Your task to perform on an android device: Go to Google Image 0: 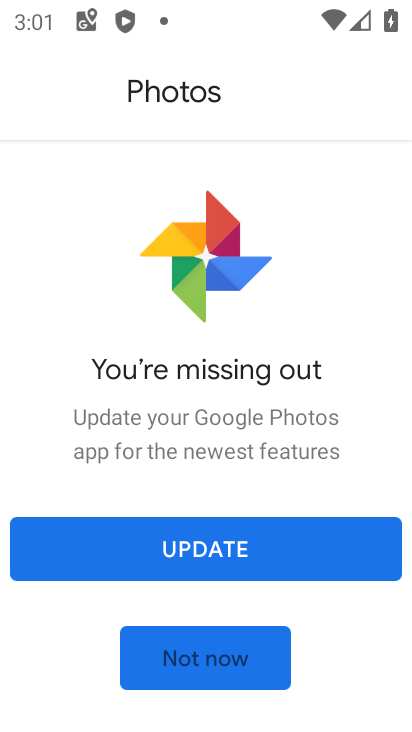
Step 0: press home button
Your task to perform on an android device: Go to Google Image 1: 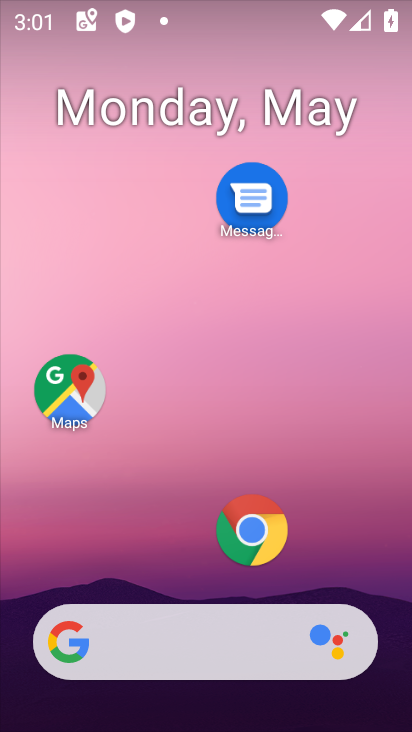
Step 1: drag from (149, 592) to (224, 95)
Your task to perform on an android device: Go to Google Image 2: 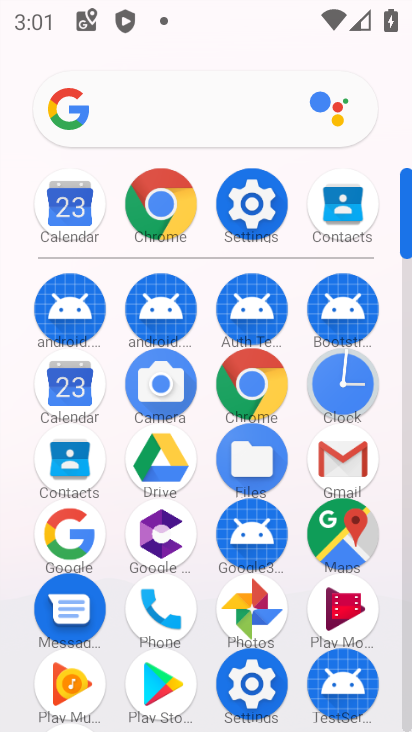
Step 2: click (70, 536)
Your task to perform on an android device: Go to Google Image 3: 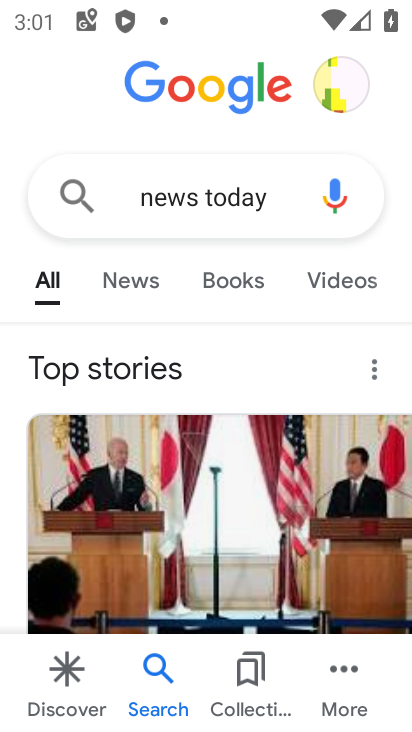
Step 3: task complete